Your task to perform on an android device: Open sound settings Image 0: 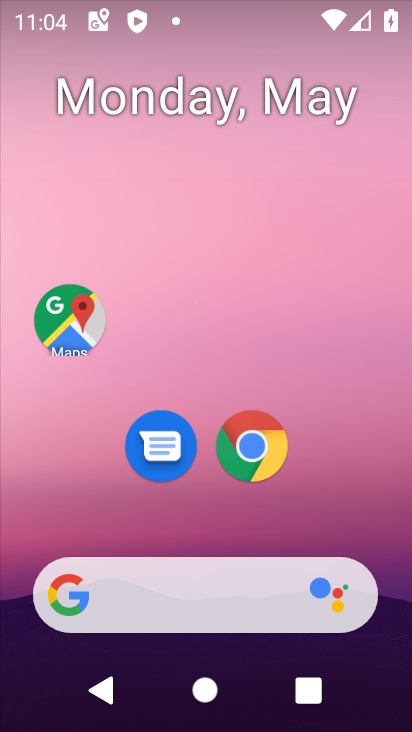
Step 0: drag from (245, 574) to (257, 130)
Your task to perform on an android device: Open sound settings Image 1: 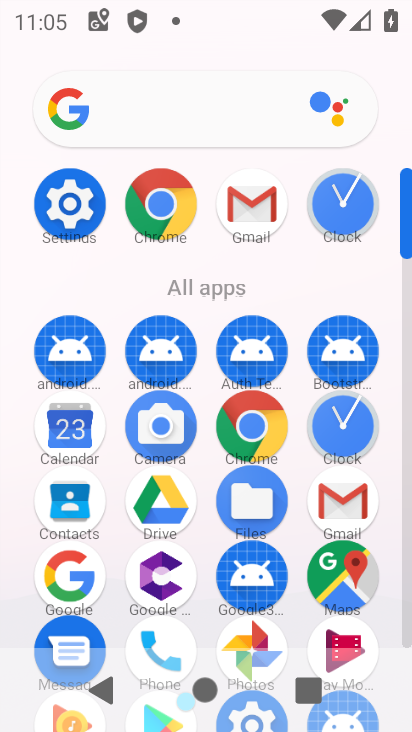
Step 1: click (77, 231)
Your task to perform on an android device: Open sound settings Image 2: 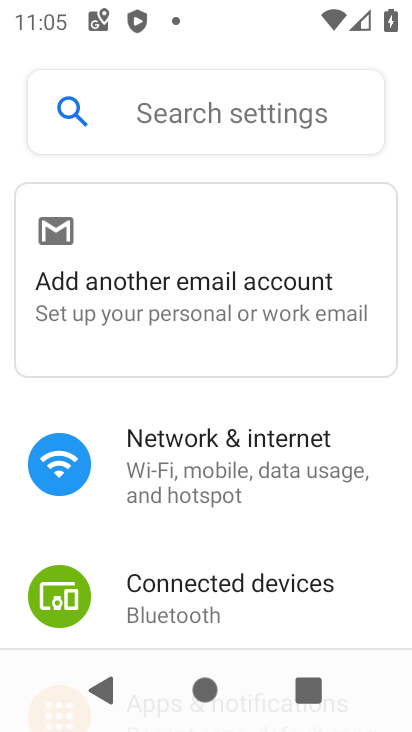
Step 2: drag from (175, 554) to (158, 106)
Your task to perform on an android device: Open sound settings Image 3: 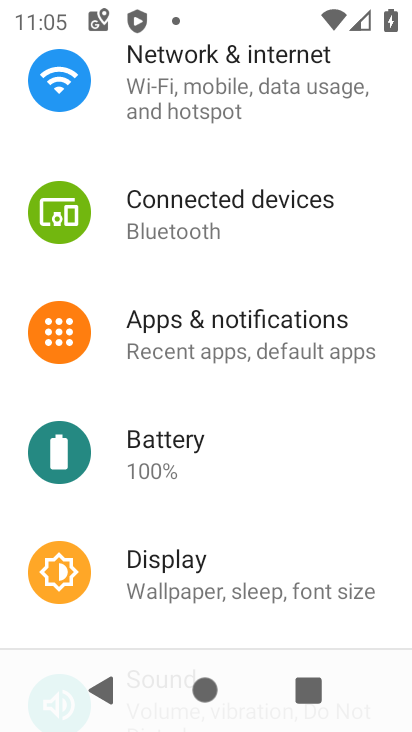
Step 3: drag from (226, 602) to (238, 199)
Your task to perform on an android device: Open sound settings Image 4: 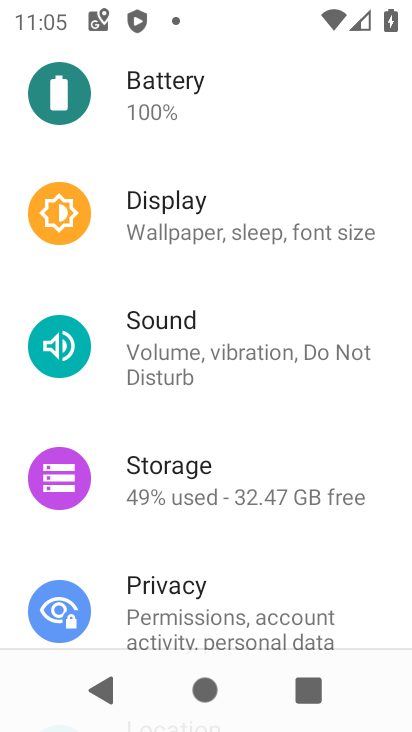
Step 4: click (172, 334)
Your task to perform on an android device: Open sound settings Image 5: 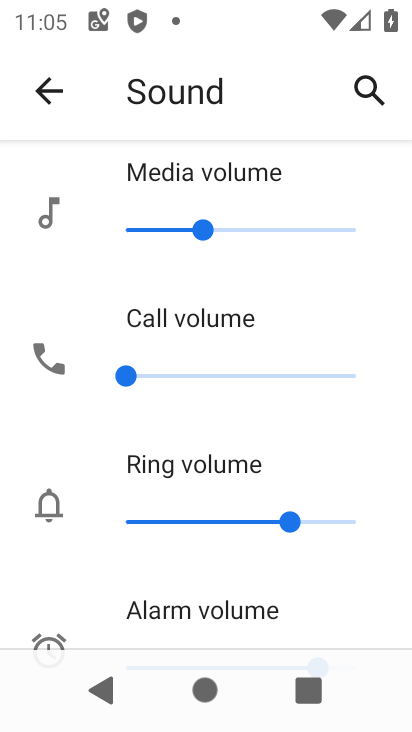
Step 5: task complete